Your task to perform on an android device: toggle notification dots Image 0: 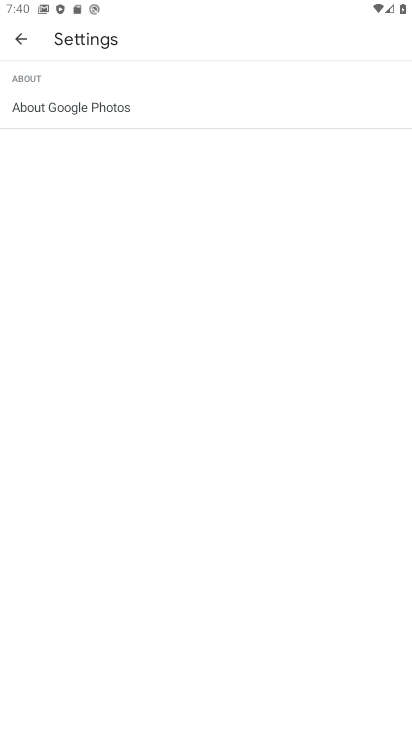
Step 0: press home button
Your task to perform on an android device: toggle notification dots Image 1: 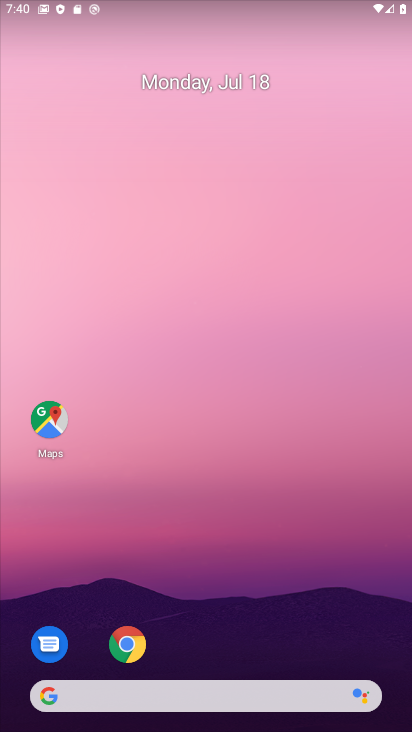
Step 1: drag from (303, 631) to (257, 240)
Your task to perform on an android device: toggle notification dots Image 2: 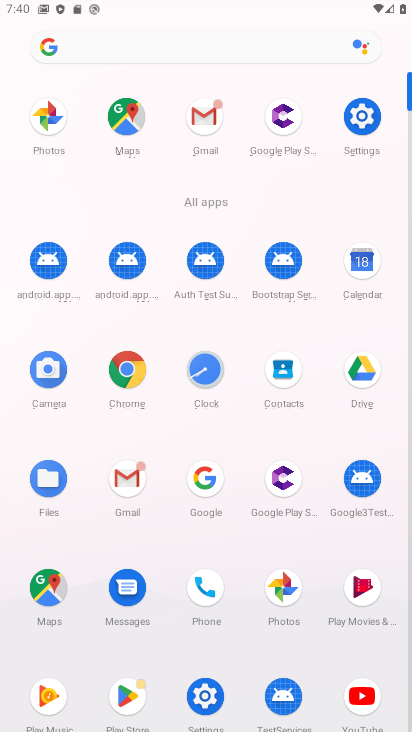
Step 2: click (207, 707)
Your task to perform on an android device: toggle notification dots Image 3: 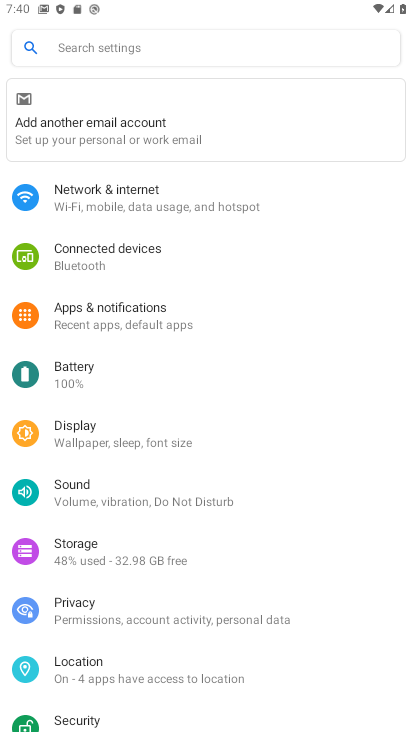
Step 3: drag from (207, 707) to (157, 172)
Your task to perform on an android device: toggle notification dots Image 4: 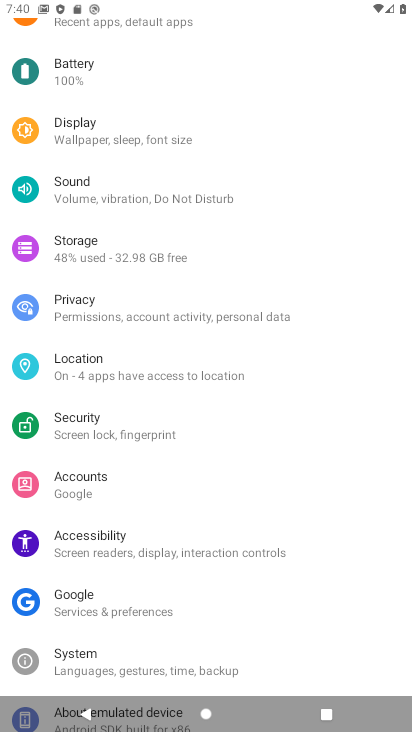
Step 4: drag from (124, 653) to (80, 263)
Your task to perform on an android device: toggle notification dots Image 5: 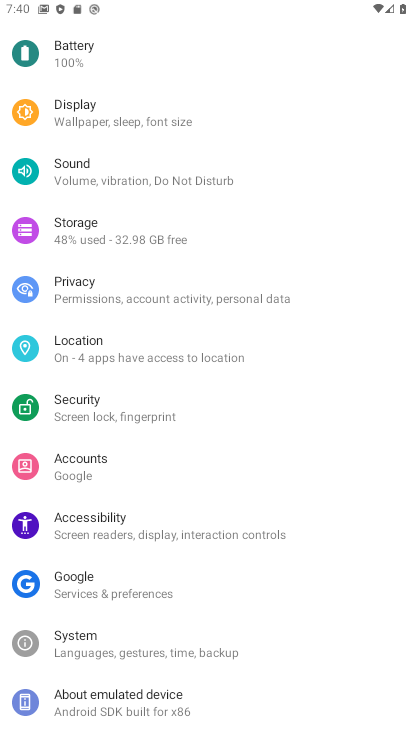
Step 5: drag from (134, 231) to (174, 512)
Your task to perform on an android device: toggle notification dots Image 6: 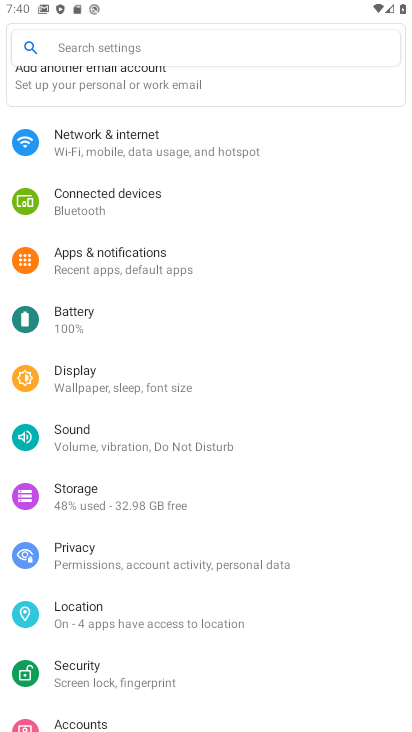
Step 6: click (148, 255)
Your task to perform on an android device: toggle notification dots Image 7: 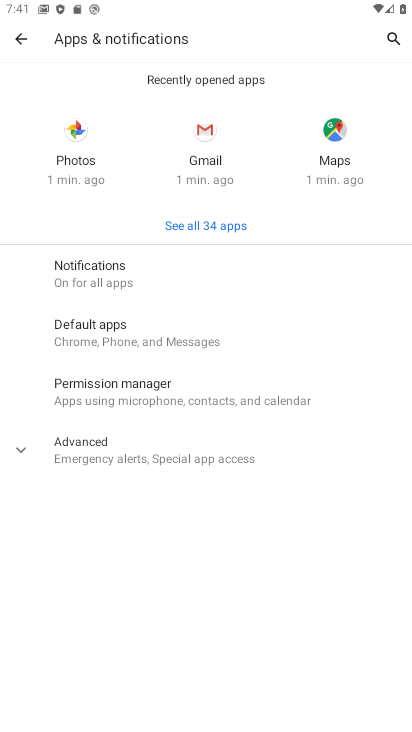
Step 7: click (163, 276)
Your task to perform on an android device: toggle notification dots Image 8: 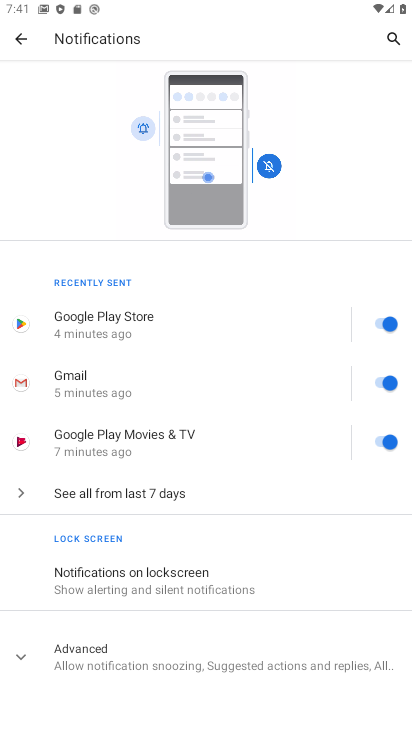
Step 8: click (150, 645)
Your task to perform on an android device: toggle notification dots Image 9: 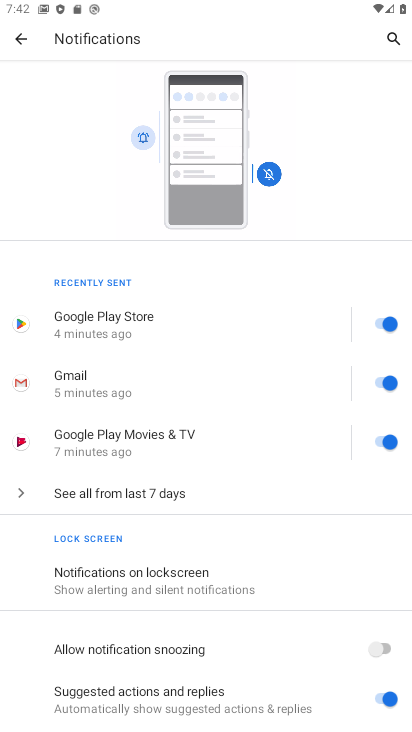
Step 9: drag from (250, 651) to (305, 500)
Your task to perform on an android device: toggle notification dots Image 10: 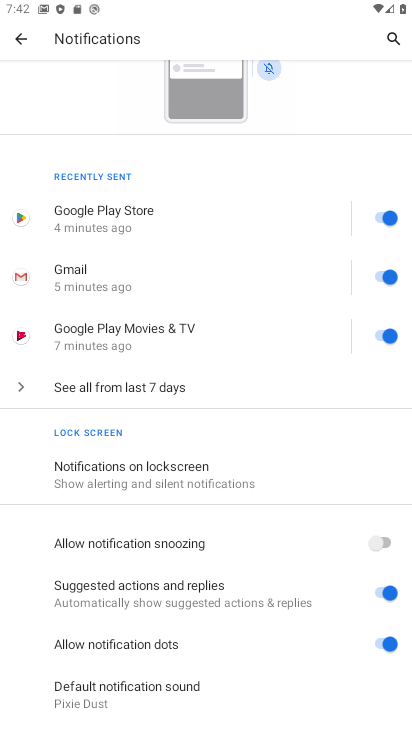
Step 10: click (381, 647)
Your task to perform on an android device: toggle notification dots Image 11: 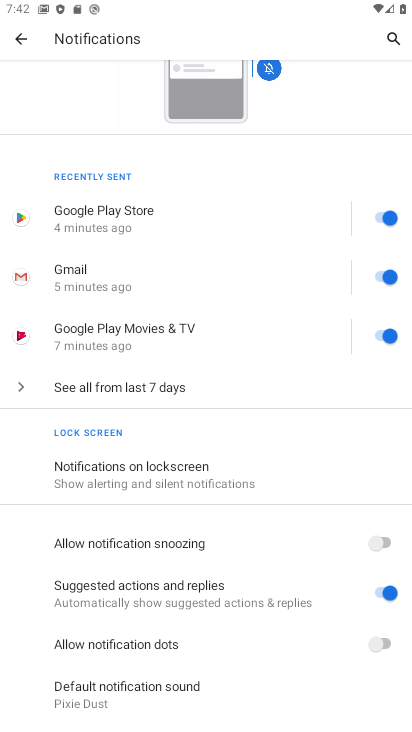
Step 11: task complete